Your task to perform on an android device: Empty the shopping cart on amazon.com. Add "macbook" to the cart on amazon.com, then select checkout. Image 0: 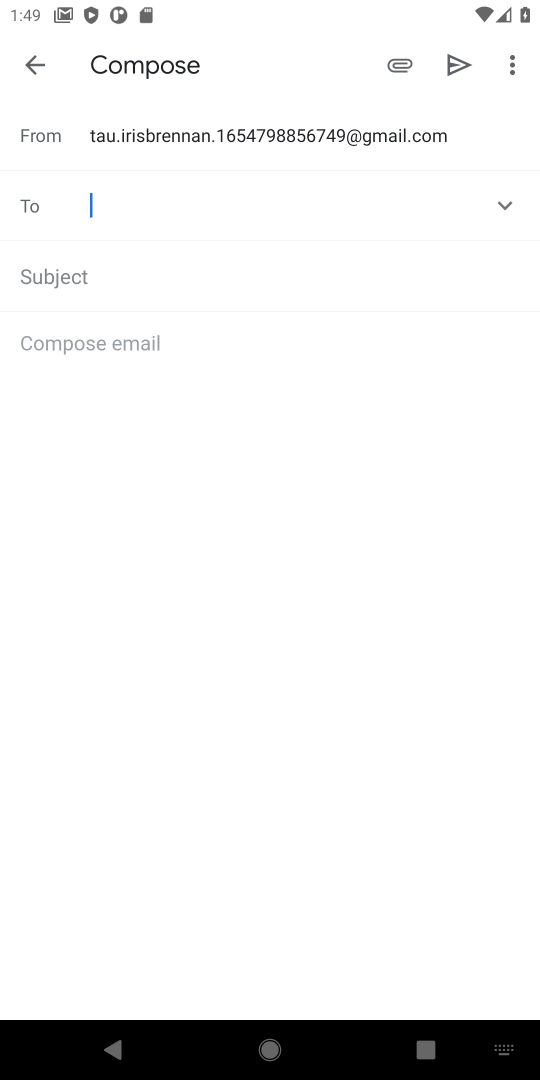
Step 0: press home button
Your task to perform on an android device: Empty the shopping cart on amazon.com. Add "macbook" to the cart on amazon.com, then select checkout. Image 1: 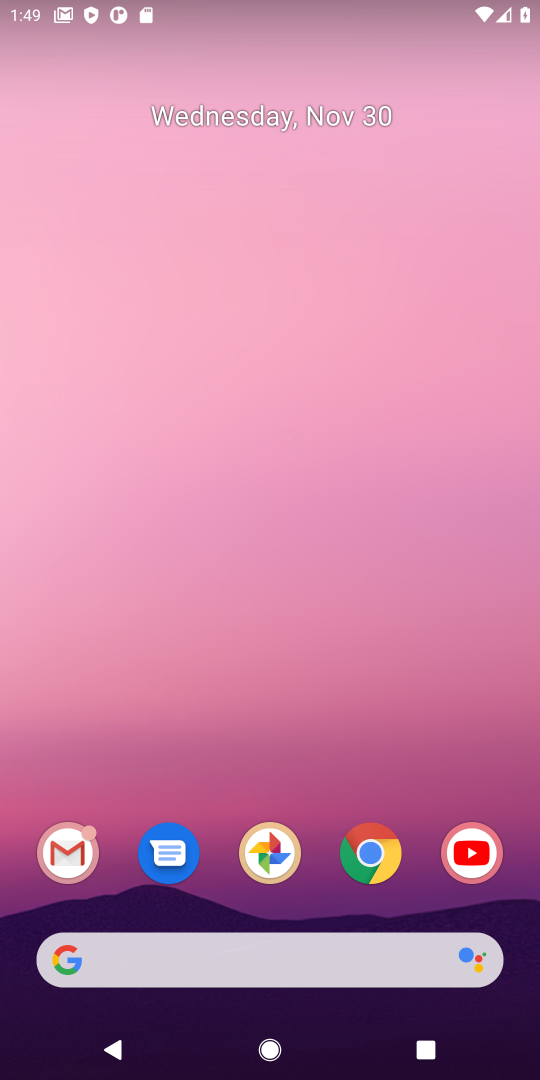
Step 1: click (383, 853)
Your task to perform on an android device: Empty the shopping cart on amazon.com. Add "macbook" to the cart on amazon.com, then select checkout. Image 2: 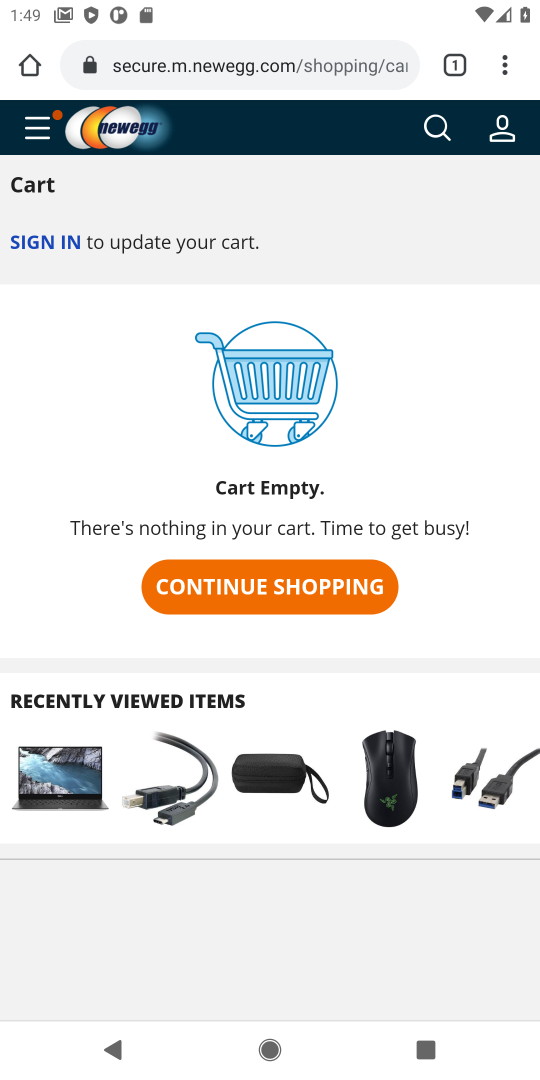
Step 2: click (224, 65)
Your task to perform on an android device: Empty the shopping cart on amazon.com. Add "macbook" to the cart on amazon.com, then select checkout. Image 3: 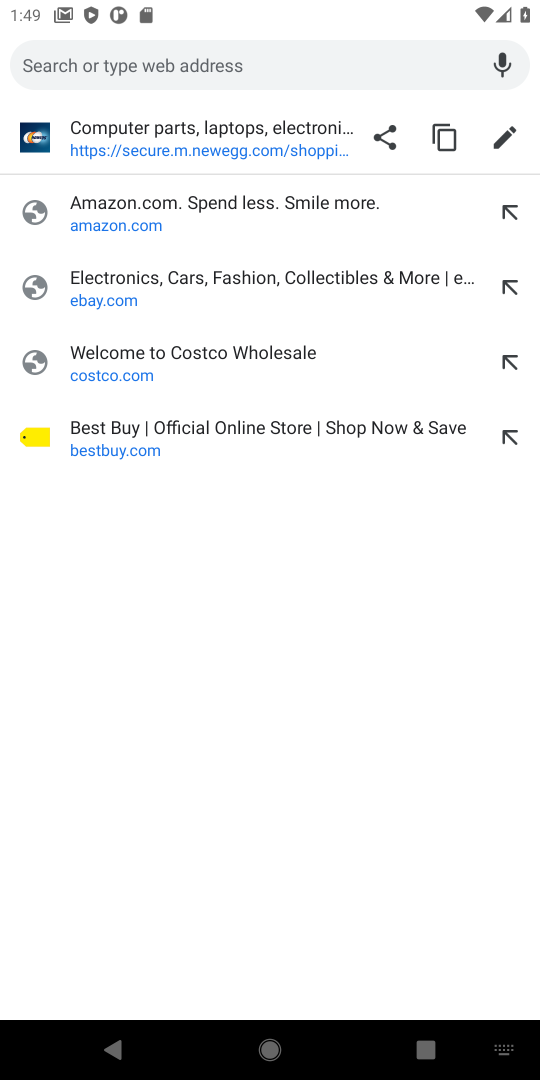
Step 3: click (114, 211)
Your task to perform on an android device: Empty the shopping cart on amazon.com. Add "macbook" to the cart on amazon.com, then select checkout. Image 4: 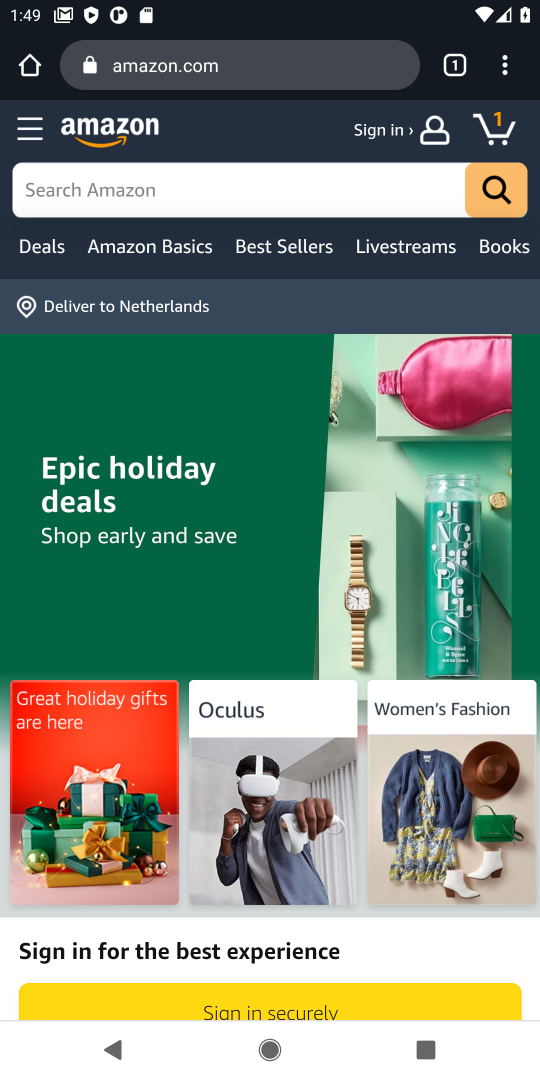
Step 4: click (501, 135)
Your task to perform on an android device: Empty the shopping cart on amazon.com. Add "macbook" to the cart on amazon.com, then select checkout. Image 5: 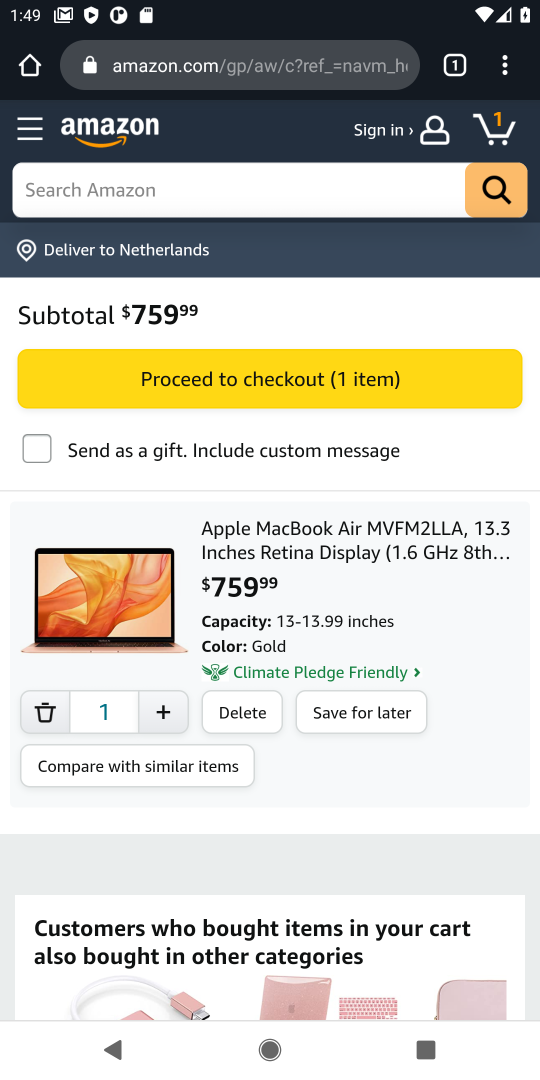
Step 5: click (234, 715)
Your task to perform on an android device: Empty the shopping cart on amazon.com. Add "macbook" to the cart on amazon.com, then select checkout. Image 6: 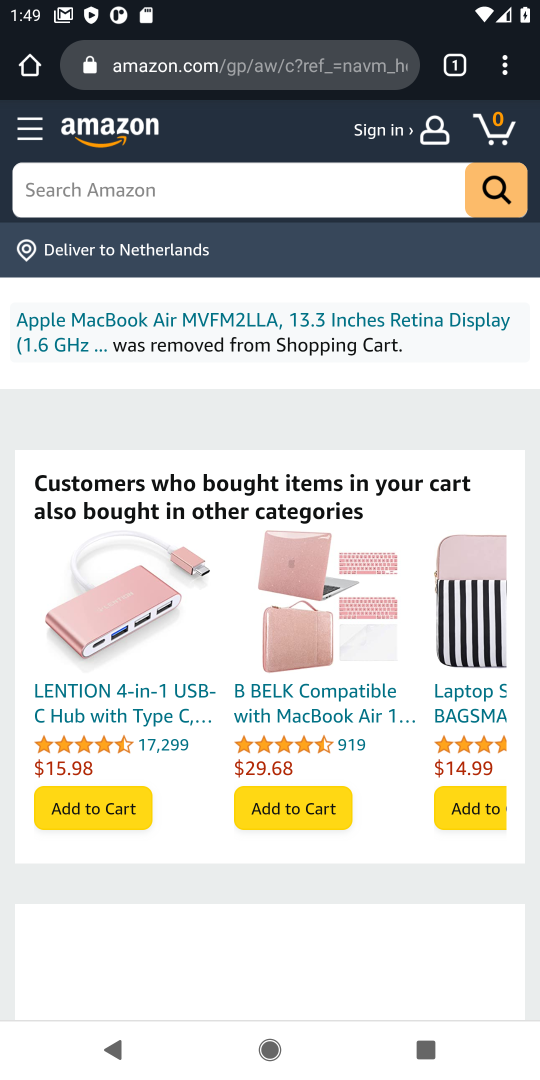
Step 6: click (52, 192)
Your task to perform on an android device: Empty the shopping cart on amazon.com. Add "macbook" to the cart on amazon.com, then select checkout. Image 7: 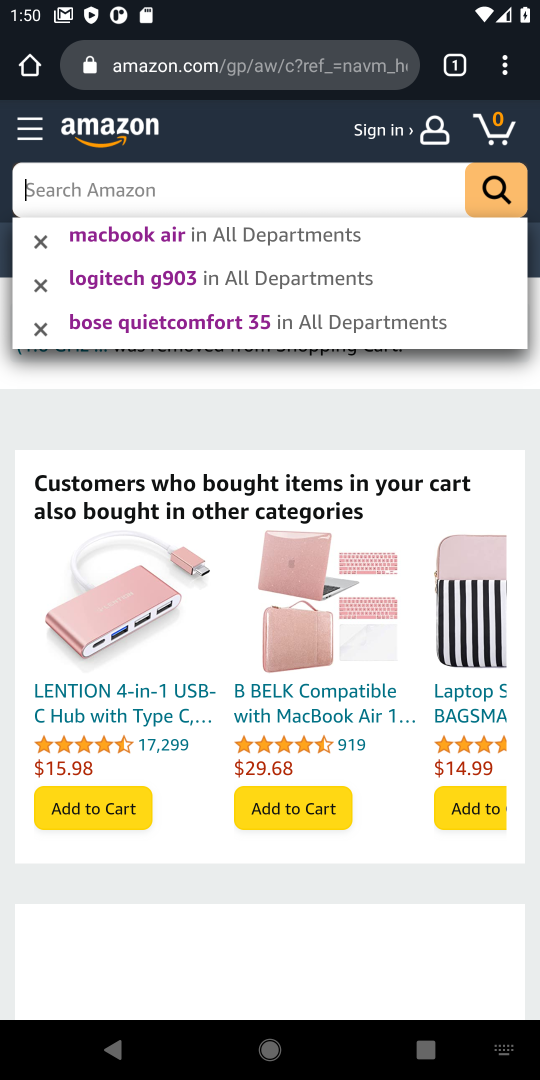
Step 7: type "macbook"
Your task to perform on an android device: Empty the shopping cart on amazon.com. Add "macbook" to the cart on amazon.com, then select checkout. Image 8: 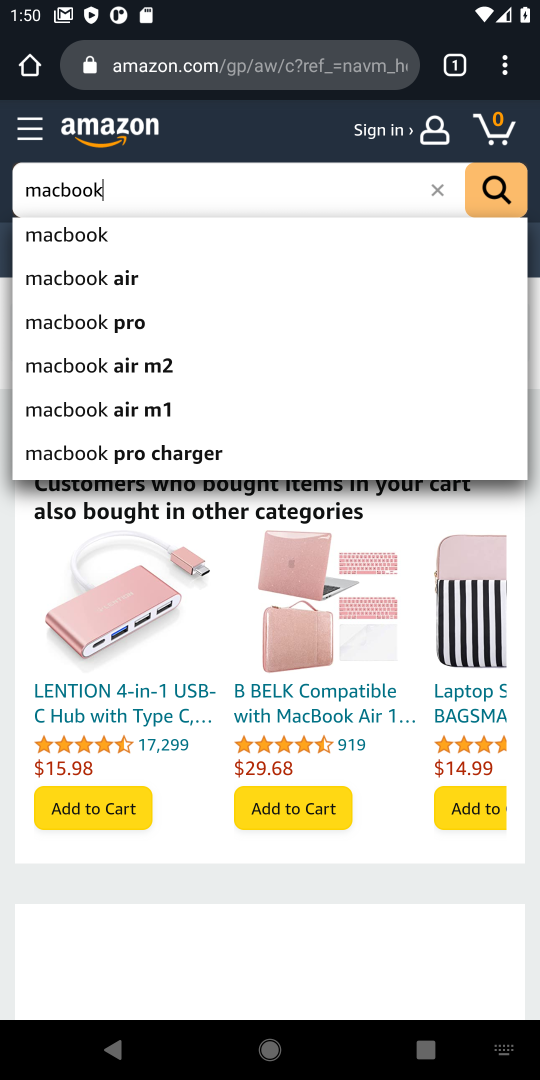
Step 8: click (63, 245)
Your task to perform on an android device: Empty the shopping cart on amazon.com. Add "macbook" to the cart on amazon.com, then select checkout. Image 9: 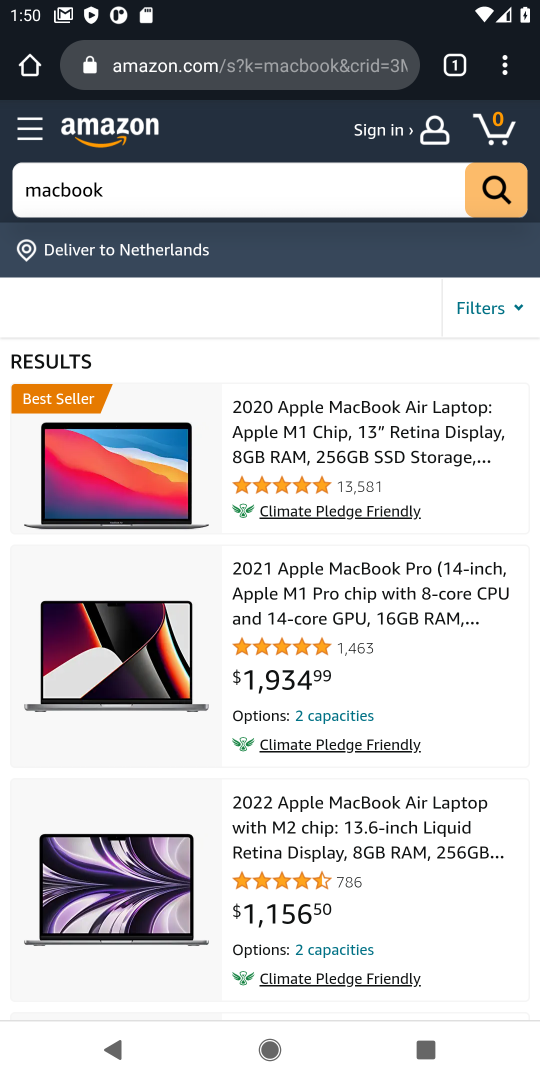
Step 9: drag from (351, 780) to (356, 683)
Your task to perform on an android device: Empty the shopping cart on amazon.com. Add "macbook" to the cart on amazon.com, then select checkout. Image 10: 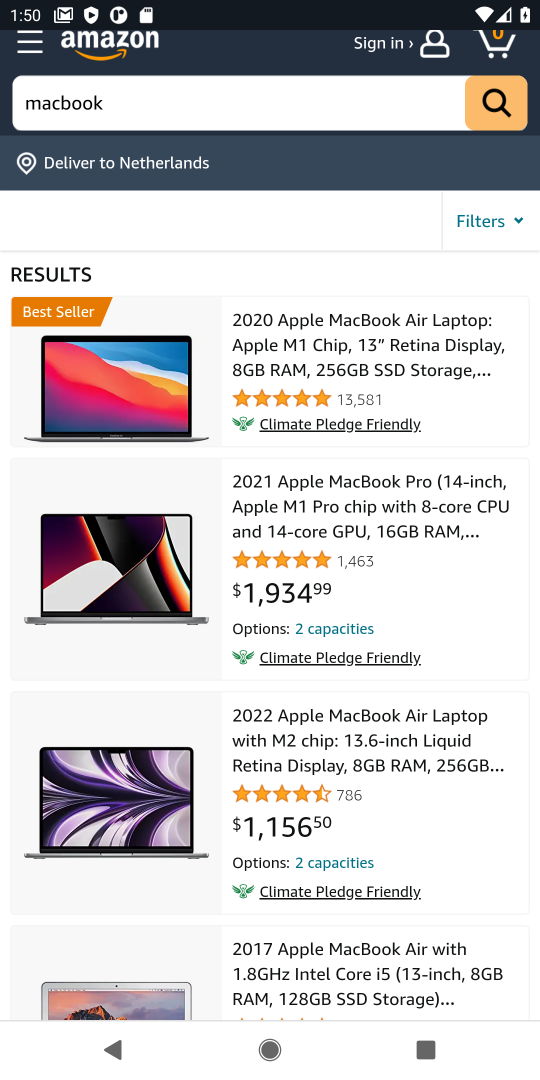
Step 10: drag from (478, 838) to (460, 447)
Your task to perform on an android device: Empty the shopping cart on amazon.com. Add "macbook" to the cart on amazon.com, then select checkout. Image 11: 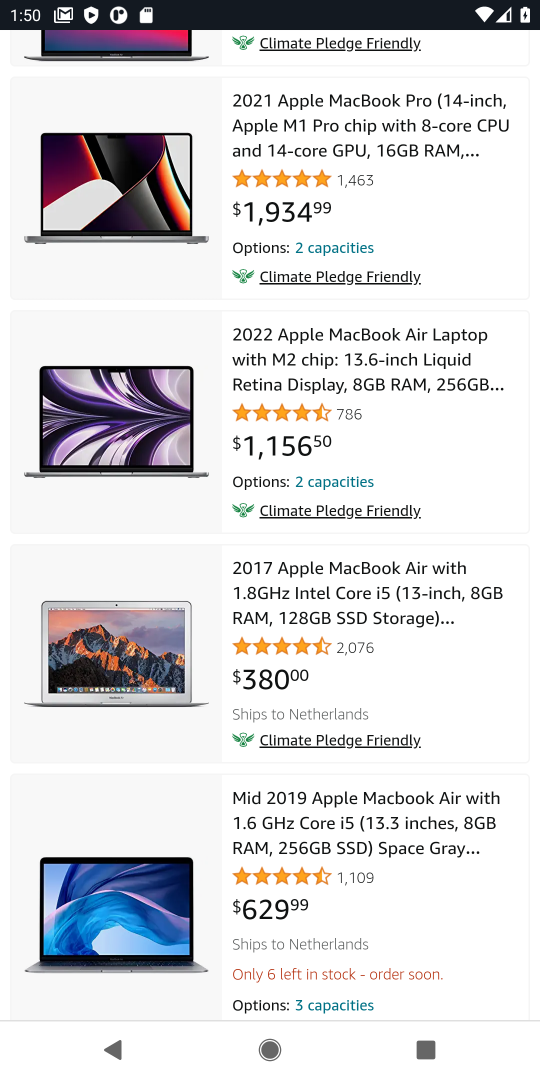
Step 11: drag from (456, 748) to (456, 545)
Your task to perform on an android device: Empty the shopping cart on amazon.com. Add "macbook" to the cart on amazon.com, then select checkout. Image 12: 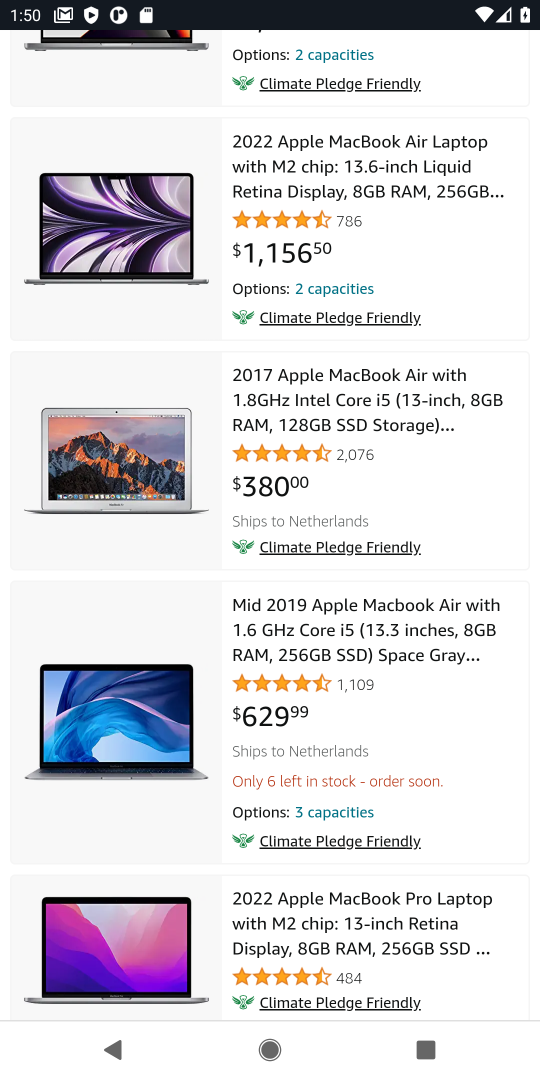
Step 12: click (310, 640)
Your task to perform on an android device: Empty the shopping cart on amazon.com. Add "macbook" to the cart on amazon.com, then select checkout. Image 13: 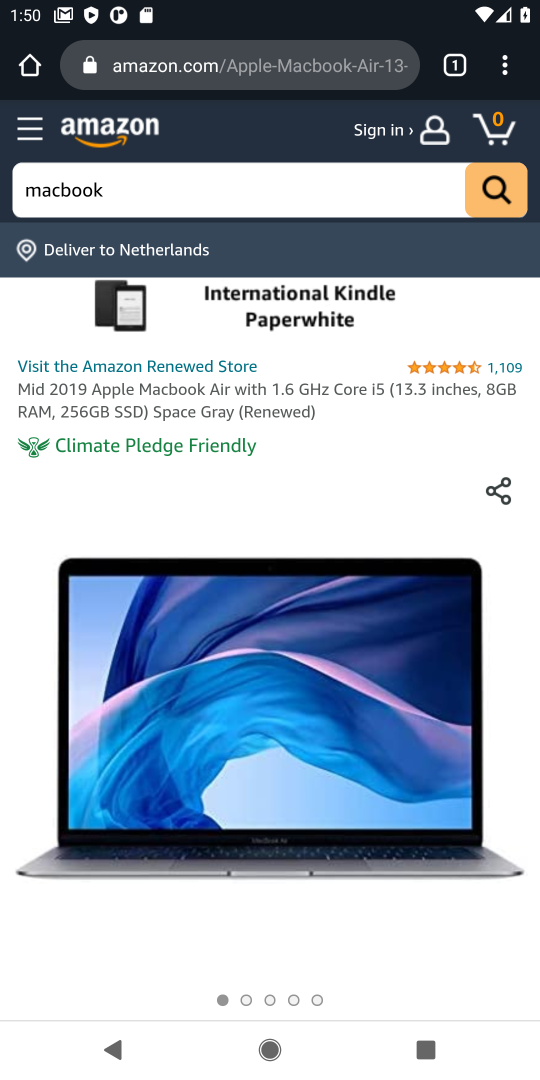
Step 13: drag from (426, 952) to (407, 438)
Your task to perform on an android device: Empty the shopping cart on amazon.com. Add "macbook" to the cart on amazon.com, then select checkout. Image 14: 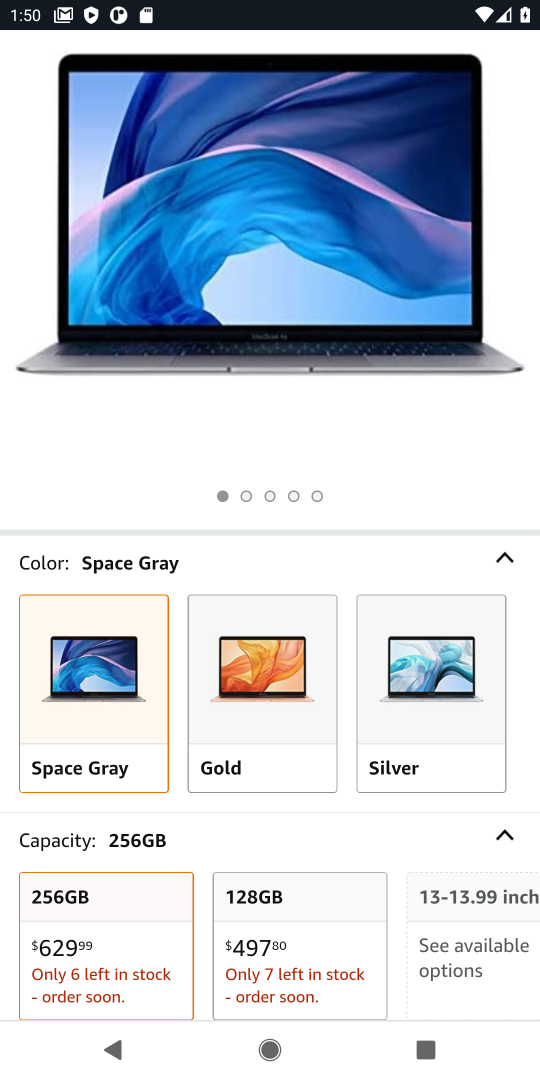
Step 14: drag from (483, 736) to (481, 424)
Your task to perform on an android device: Empty the shopping cart on amazon.com. Add "macbook" to the cart on amazon.com, then select checkout. Image 15: 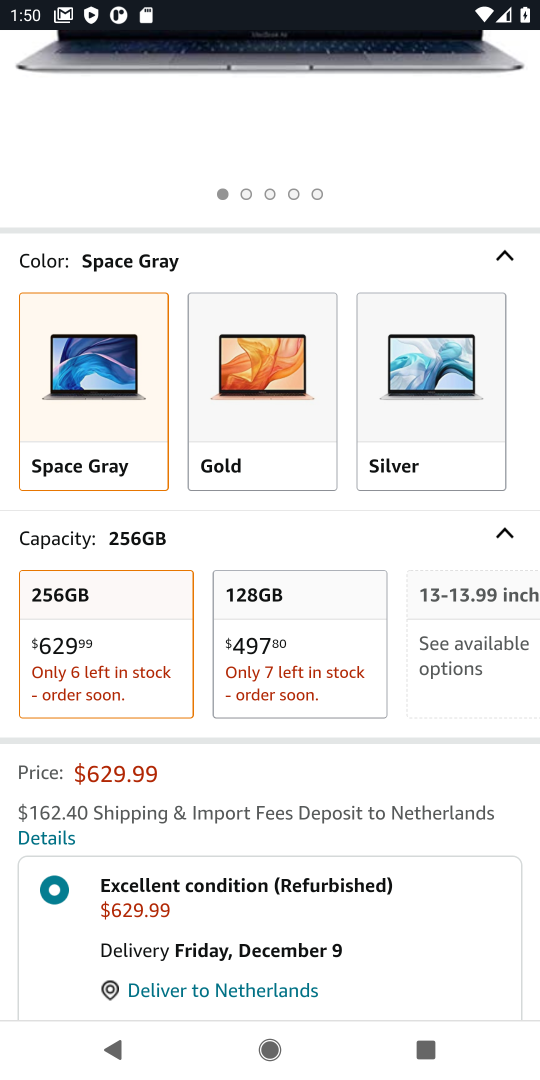
Step 15: drag from (468, 687) to (470, 325)
Your task to perform on an android device: Empty the shopping cart on amazon.com. Add "macbook" to the cart on amazon.com, then select checkout. Image 16: 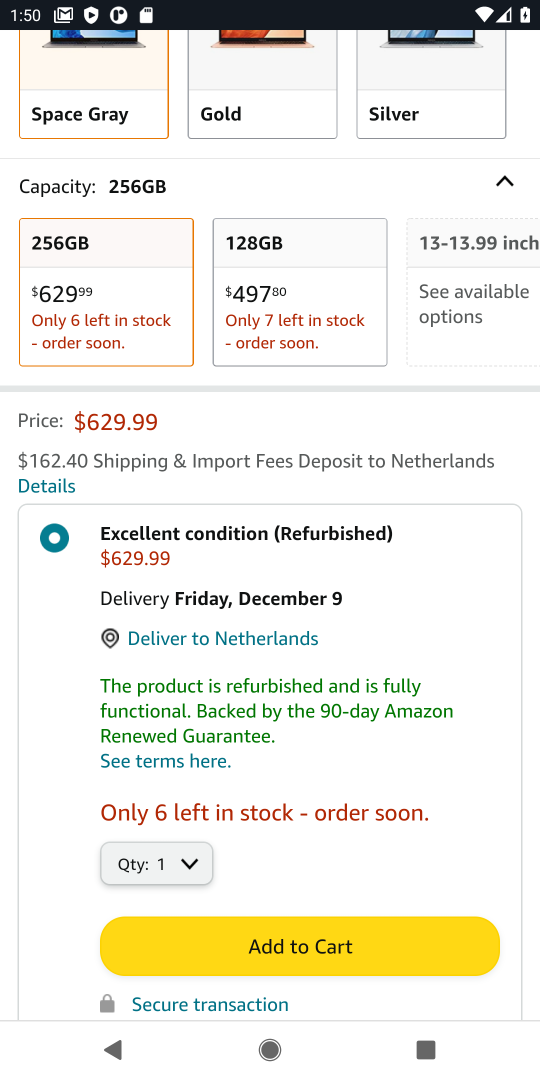
Step 16: click (261, 958)
Your task to perform on an android device: Empty the shopping cart on amazon.com. Add "macbook" to the cart on amazon.com, then select checkout. Image 17: 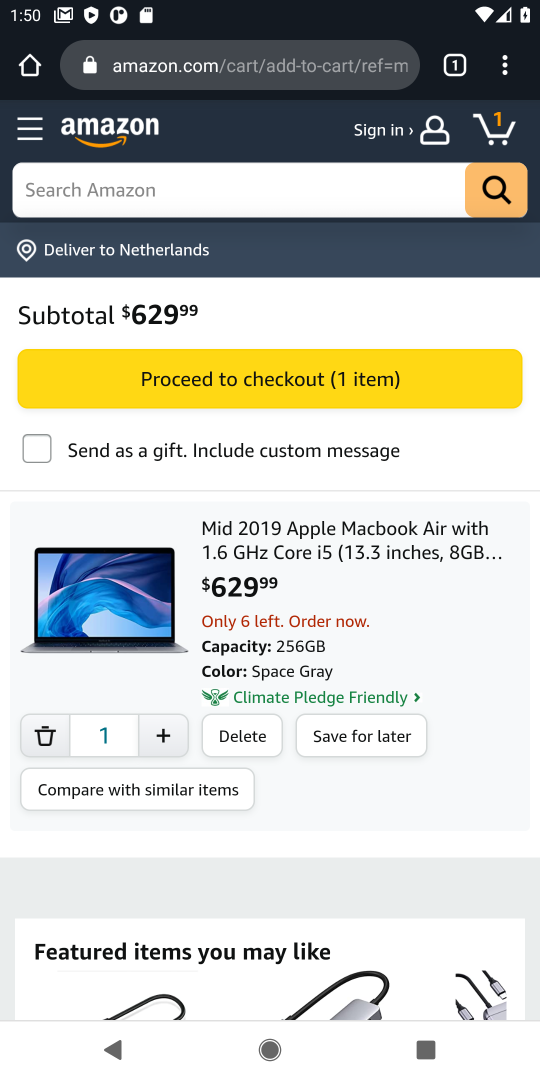
Step 17: click (231, 378)
Your task to perform on an android device: Empty the shopping cart on amazon.com. Add "macbook" to the cart on amazon.com, then select checkout. Image 18: 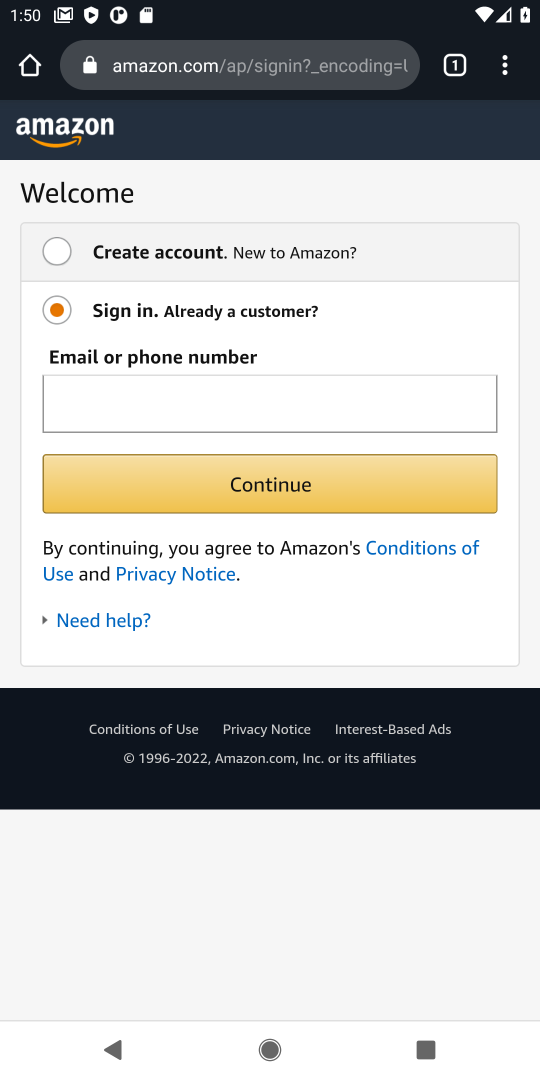
Step 18: task complete